Your task to perform on an android device: toggle wifi Image 0: 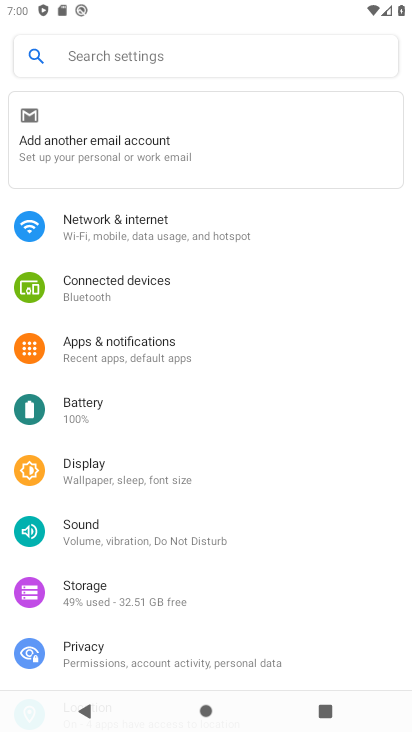
Step 0: press home button
Your task to perform on an android device: toggle wifi Image 1: 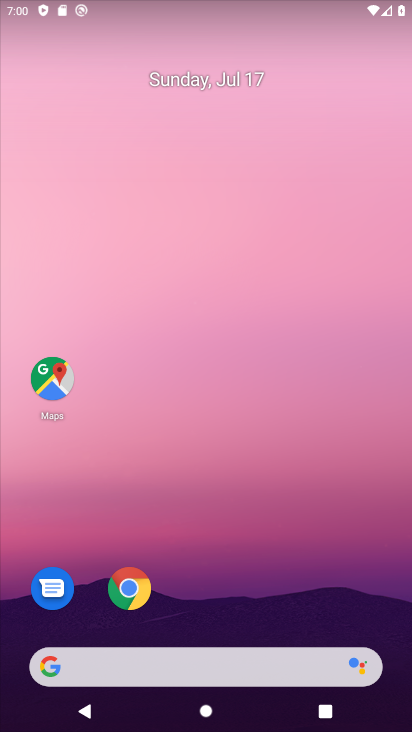
Step 1: drag from (162, 3) to (253, 468)
Your task to perform on an android device: toggle wifi Image 2: 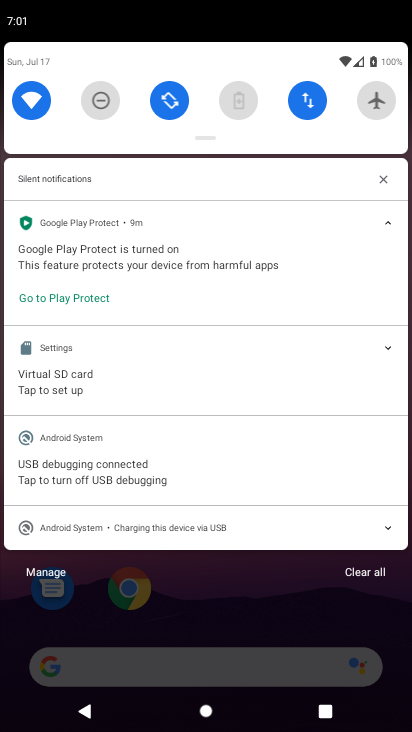
Step 2: click (27, 100)
Your task to perform on an android device: toggle wifi Image 3: 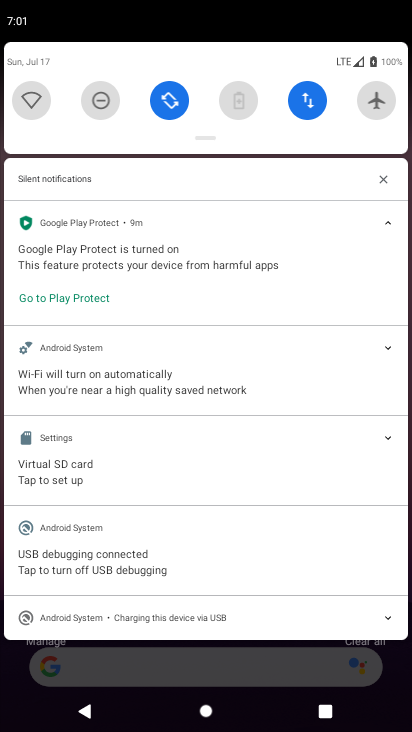
Step 3: task complete